Your task to perform on an android device: remove spam from my inbox in the gmail app Image 0: 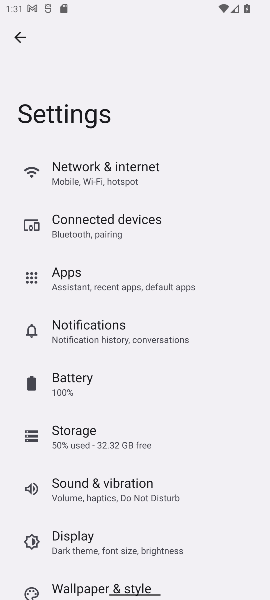
Step 0: press home button
Your task to perform on an android device: remove spam from my inbox in the gmail app Image 1: 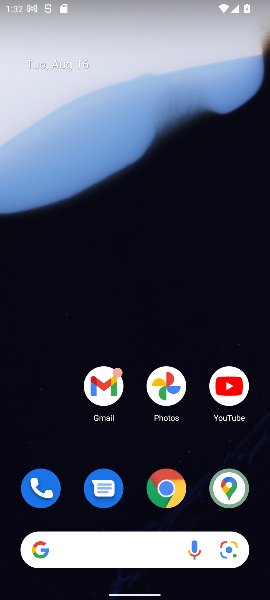
Step 1: drag from (141, 317) to (167, 89)
Your task to perform on an android device: remove spam from my inbox in the gmail app Image 2: 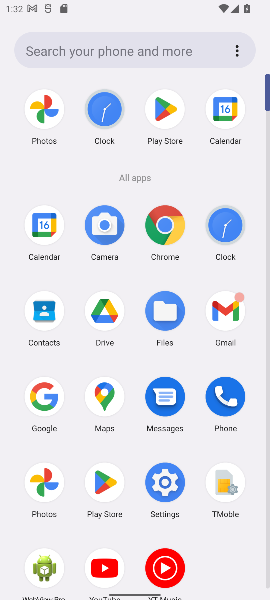
Step 2: click (220, 308)
Your task to perform on an android device: remove spam from my inbox in the gmail app Image 3: 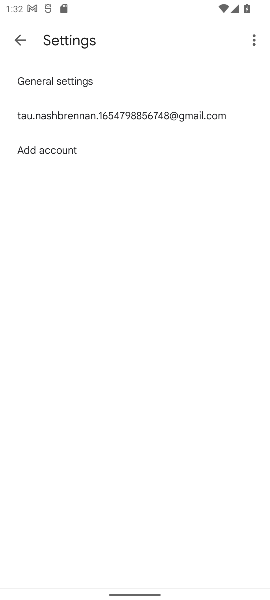
Step 3: task complete